Your task to perform on an android device: turn on improve location accuracy Image 0: 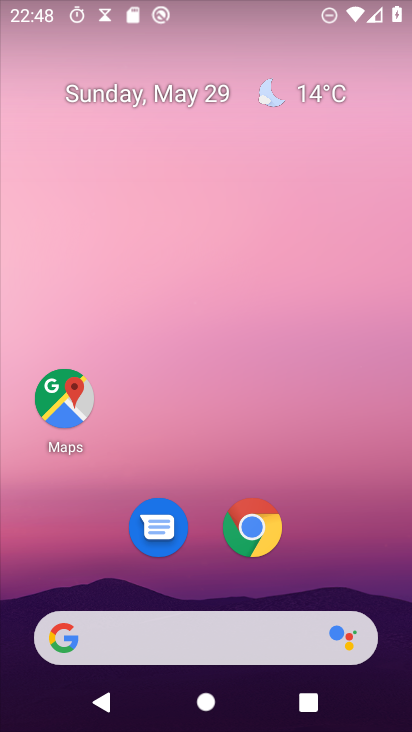
Step 0: press home button
Your task to perform on an android device: turn on improve location accuracy Image 1: 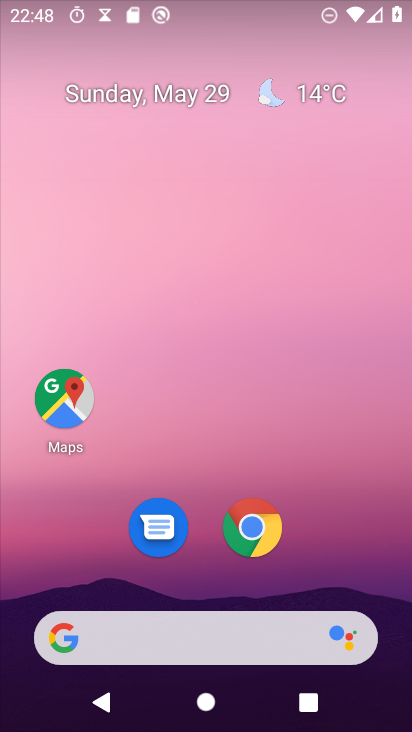
Step 1: drag from (168, 642) to (317, 119)
Your task to perform on an android device: turn on improve location accuracy Image 2: 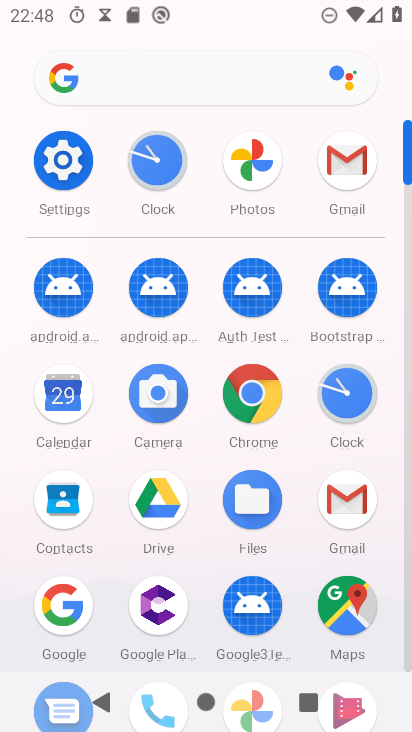
Step 2: click (53, 168)
Your task to perform on an android device: turn on improve location accuracy Image 3: 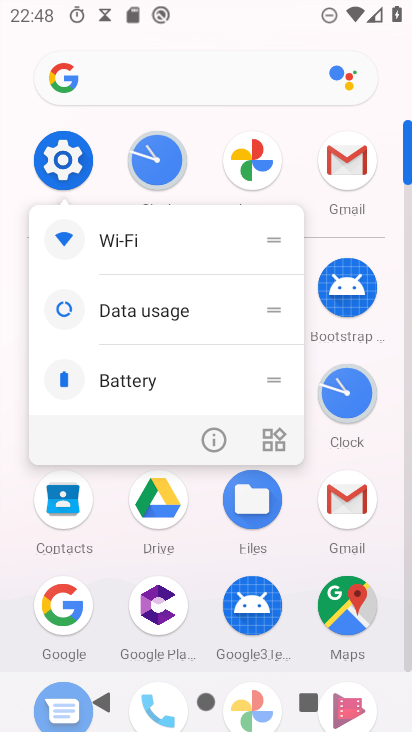
Step 3: click (65, 167)
Your task to perform on an android device: turn on improve location accuracy Image 4: 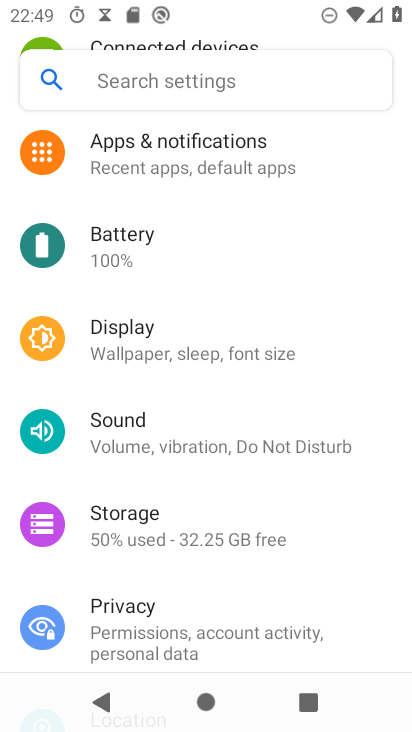
Step 4: drag from (188, 549) to (291, 128)
Your task to perform on an android device: turn on improve location accuracy Image 5: 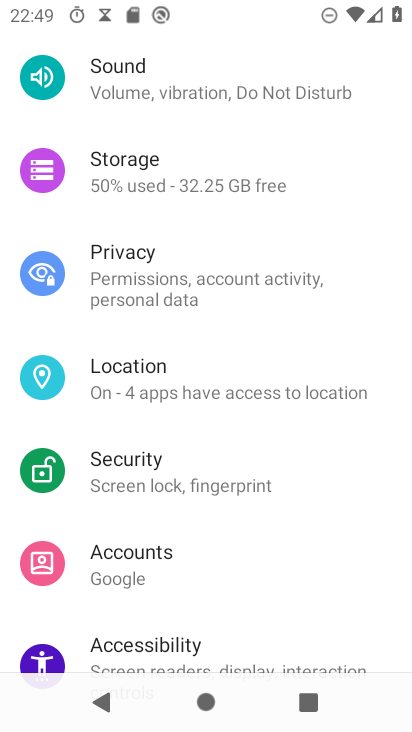
Step 5: click (150, 377)
Your task to perform on an android device: turn on improve location accuracy Image 6: 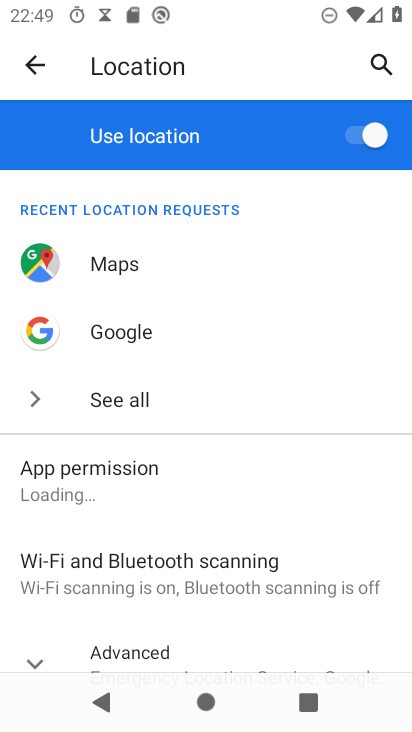
Step 6: drag from (190, 606) to (315, 184)
Your task to perform on an android device: turn on improve location accuracy Image 7: 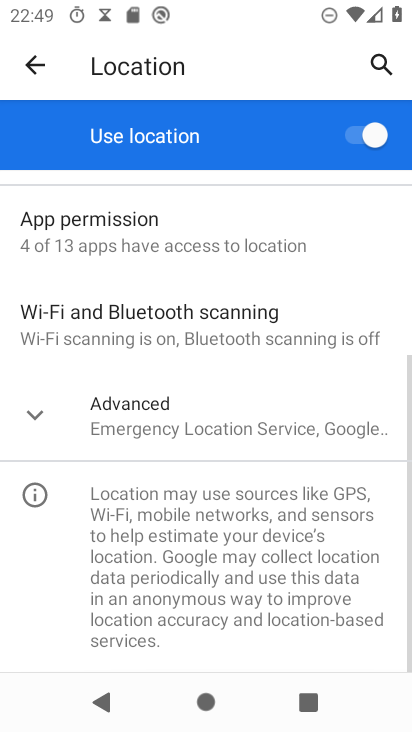
Step 7: click (144, 400)
Your task to perform on an android device: turn on improve location accuracy Image 8: 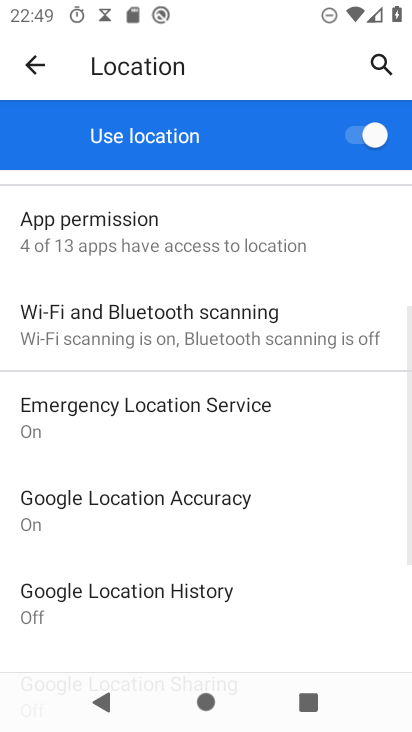
Step 8: click (168, 490)
Your task to perform on an android device: turn on improve location accuracy Image 9: 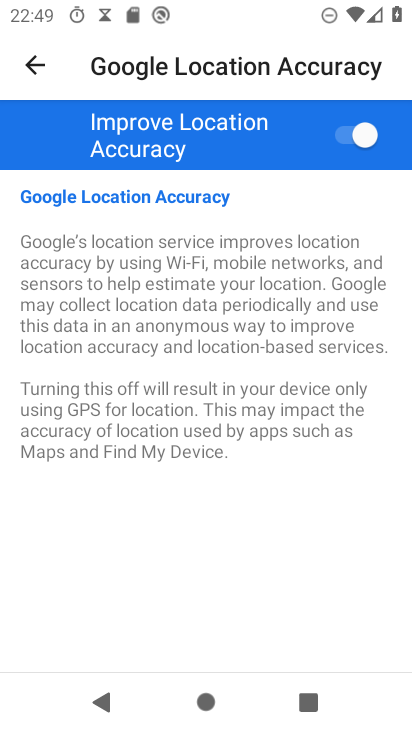
Step 9: task complete